Your task to perform on an android device: star an email in the gmail app Image 0: 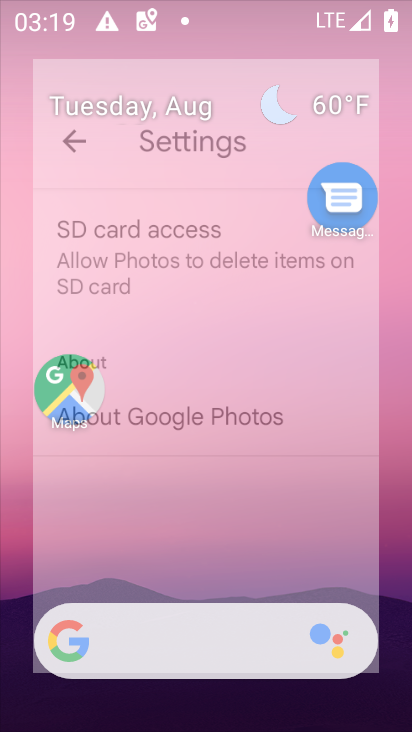
Step 0: click (188, 622)
Your task to perform on an android device: star an email in the gmail app Image 1: 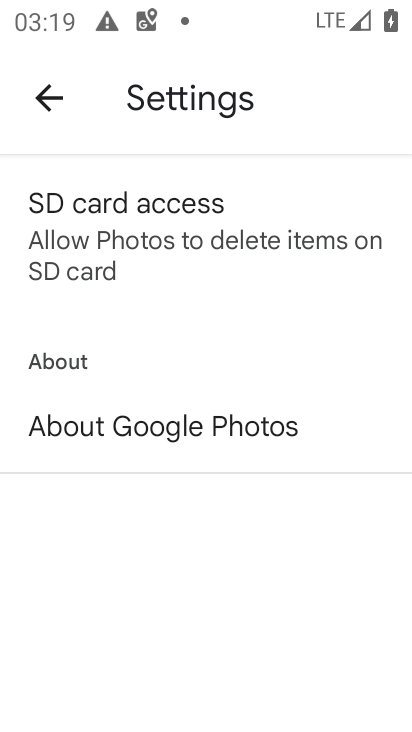
Step 1: press home button
Your task to perform on an android device: star an email in the gmail app Image 2: 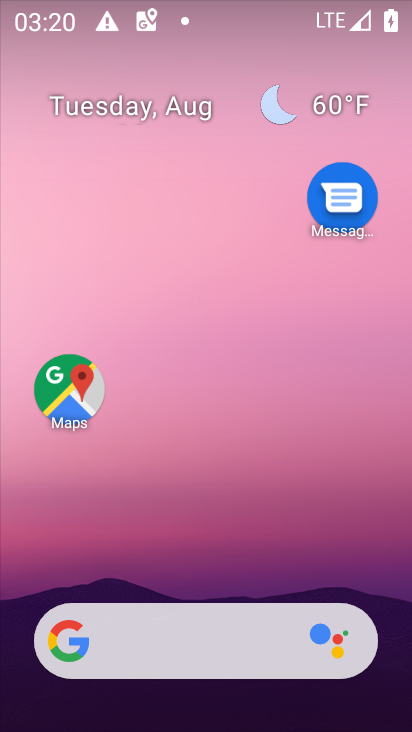
Step 2: drag from (227, 582) to (241, 102)
Your task to perform on an android device: star an email in the gmail app Image 3: 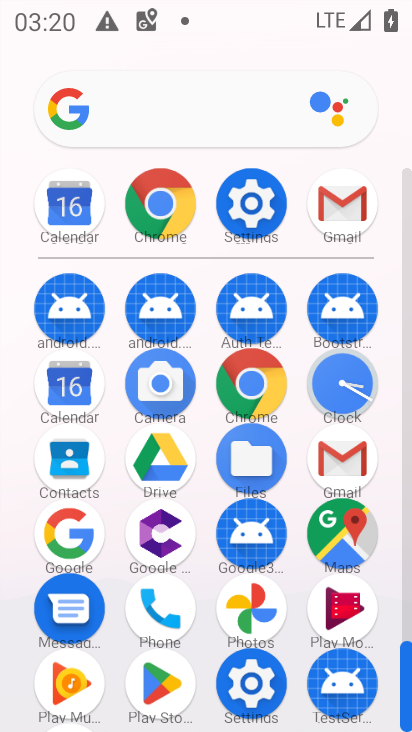
Step 3: click (333, 209)
Your task to perform on an android device: star an email in the gmail app Image 4: 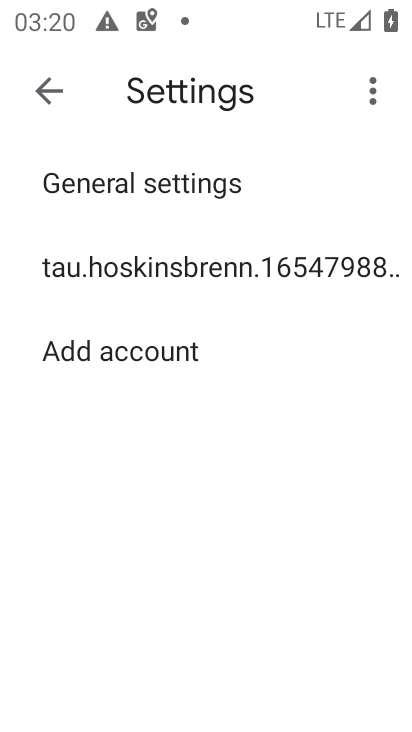
Step 4: click (40, 113)
Your task to perform on an android device: star an email in the gmail app Image 5: 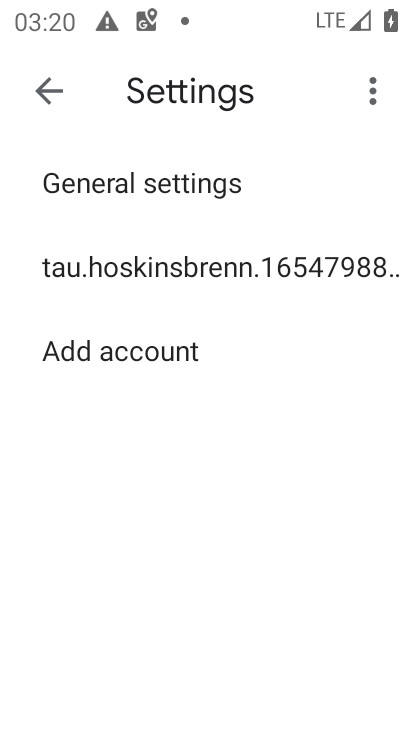
Step 5: click (43, 102)
Your task to perform on an android device: star an email in the gmail app Image 6: 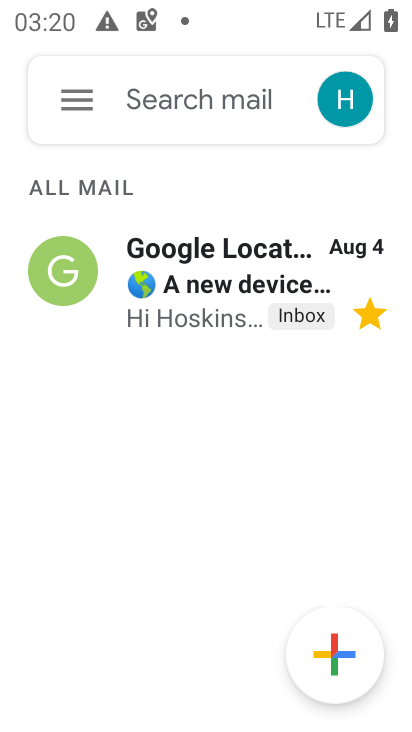
Step 6: click (74, 111)
Your task to perform on an android device: star an email in the gmail app Image 7: 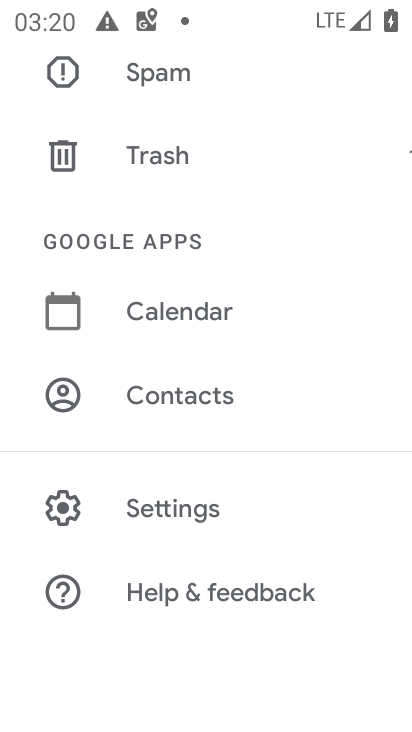
Step 7: drag from (128, 298) to (195, 675)
Your task to perform on an android device: star an email in the gmail app Image 8: 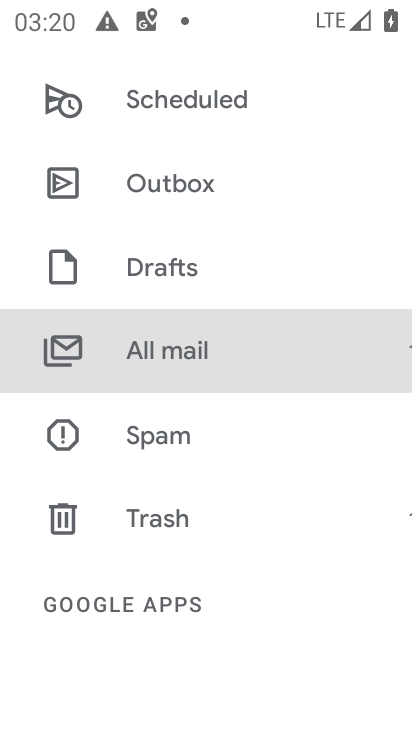
Step 8: drag from (141, 211) to (159, 335)
Your task to perform on an android device: star an email in the gmail app Image 9: 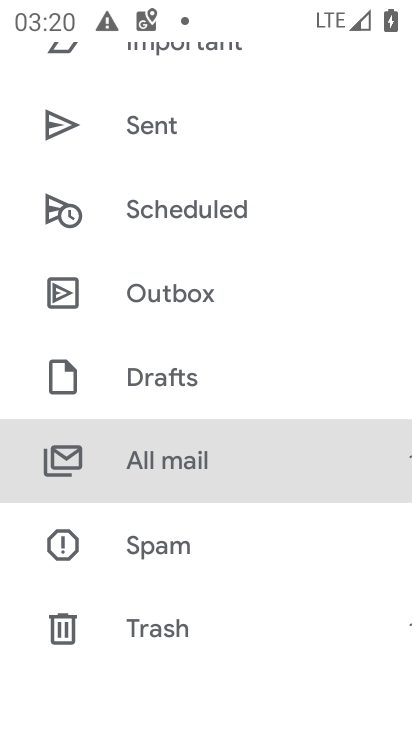
Step 9: click (171, 455)
Your task to perform on an android device: star an email in the gmail app Image 10: 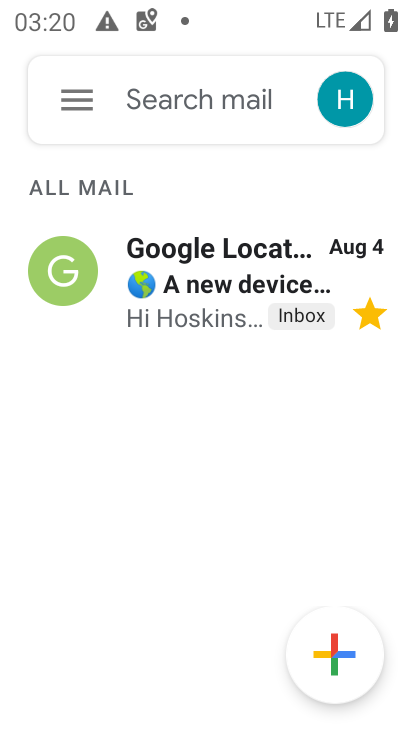
Step 10: task complete